Your task to perform on an android device: What's the weather today? Image 0: 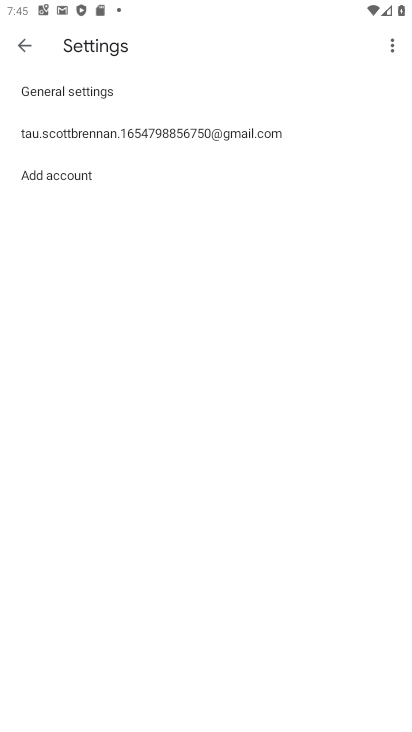
Step 0: press home button
Your task to perform on an android device: What's the weather today? Image 1: 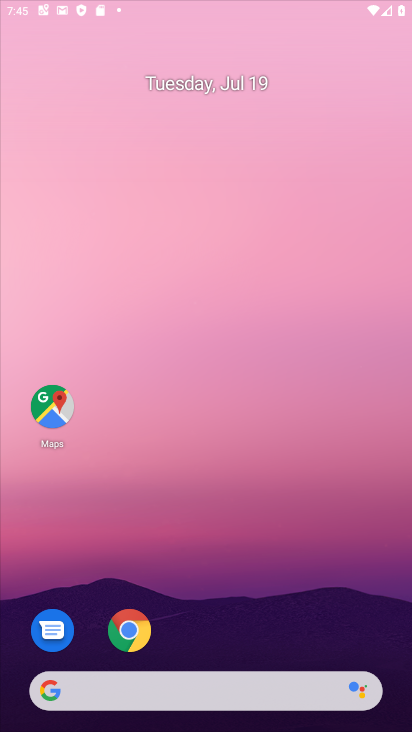
Step 1: drag from (223, 660) to (264, 145)
Your task to perform on an android device: What's the weather today? Image 2: 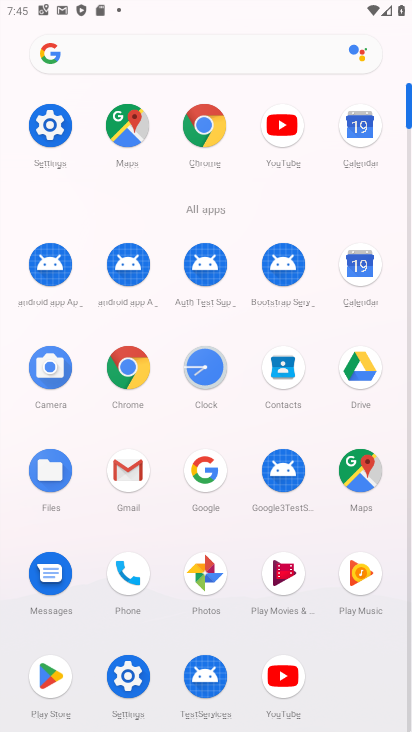
Step 2: click (126, 373)
Your task to perform on an android device: What's the weather today? Image 3: 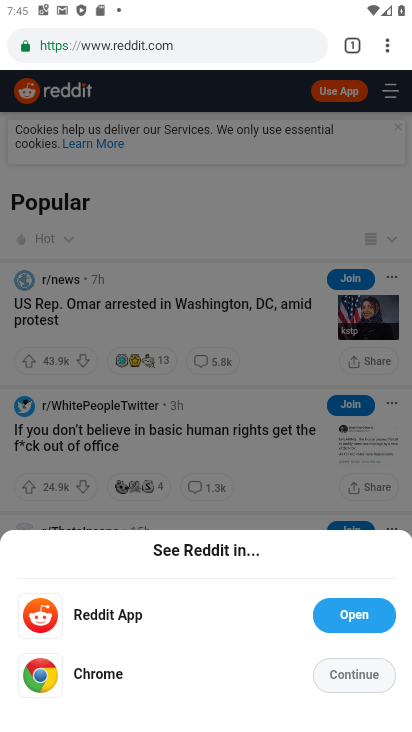
Step 3: click (182, 38)
Your task to perform on an android device: What's the weather today? Image 4: 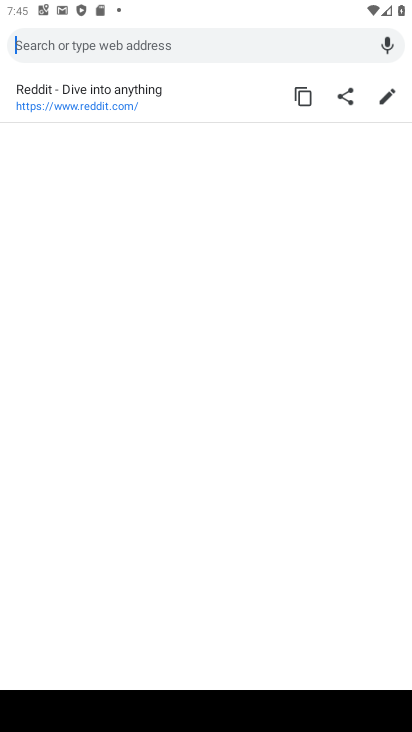
Step 4: type "weather"
Your task to perform on an android device: What's the weather today? Image 5: 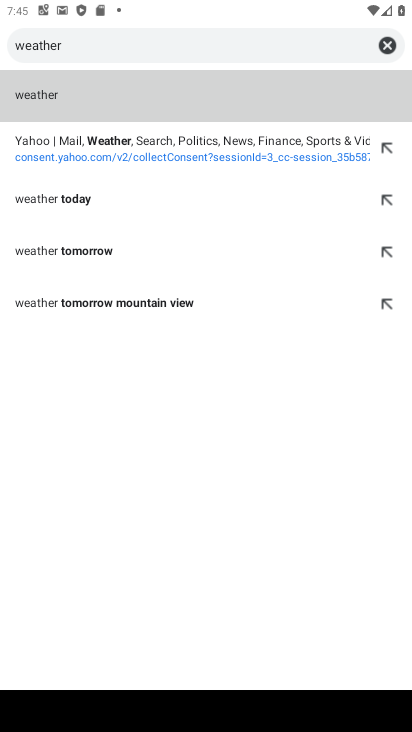
Step 5: click (34, 83)
Your task to perform on an android device: What's the weather today? Image 6: 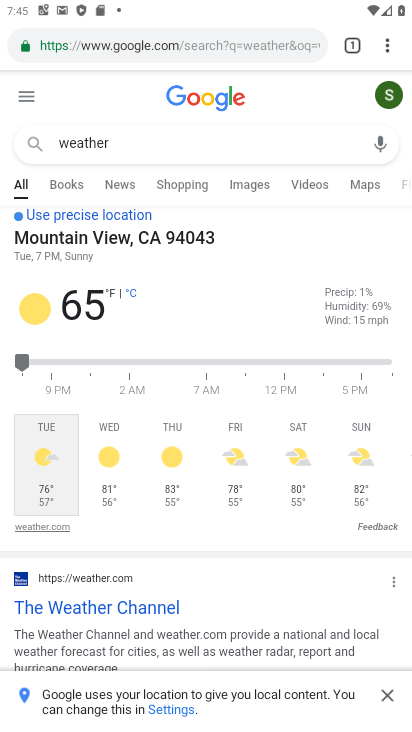
Step 6: task complete